Your task to perform on an android device: uninstall "McDonald's" Image 0: 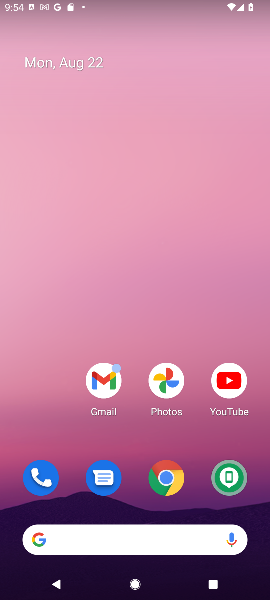
Step 0: drag from (135, 507) to (146, 39)
Your task to perform on an android device: uninstall "McDonald's" Image 1: 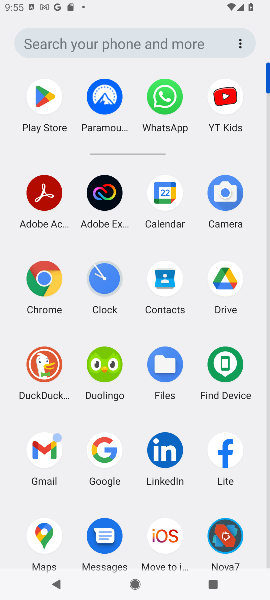
Step 1: click (50, 100)
Your task to perform on an android device: uninstall "McDonald's" Image 2: 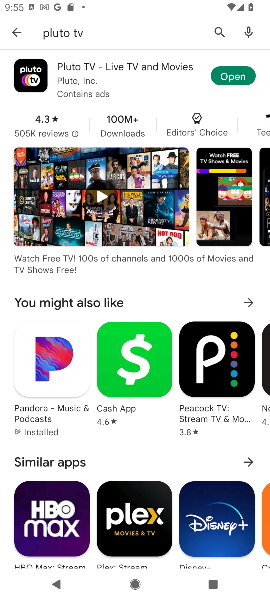
Step 2: click (219, 27)
Your task to perform on an android device: uninstall "McDonald's" Image 3: 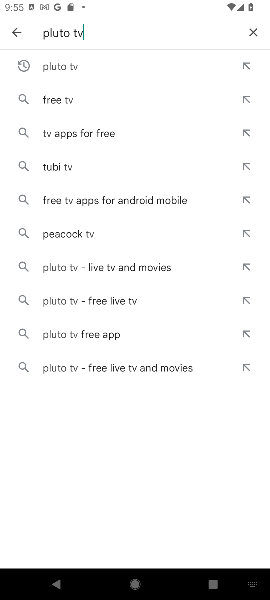
Step 3: click (246, 30)
Your task to perform on an android device: uninstall "McDonald's" Image 4: 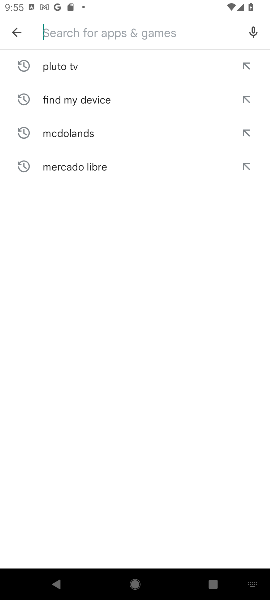
Step 4: type "mcdoland"
Your task to perform on an android device: uninstall "McDonald's" Image 5: 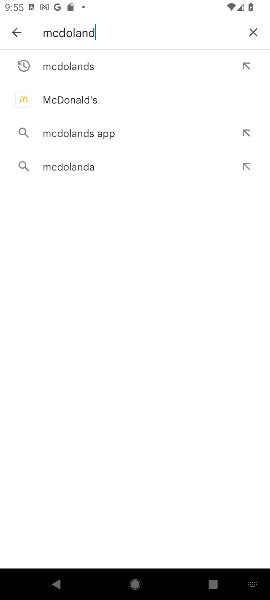
Step 5: click (98, 61)
Your task to perform on an android device: uninstall "McDonald's" Image 6: 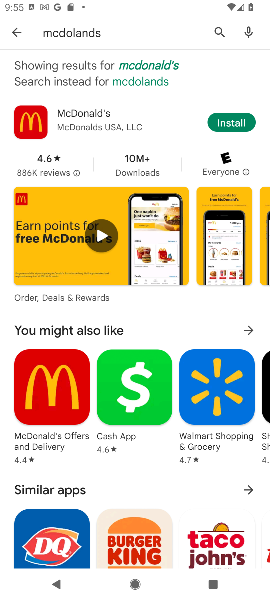
Step 6: click (226, 118)
Your task to perform on an android device: uninstall "McDonald's" Image 7: 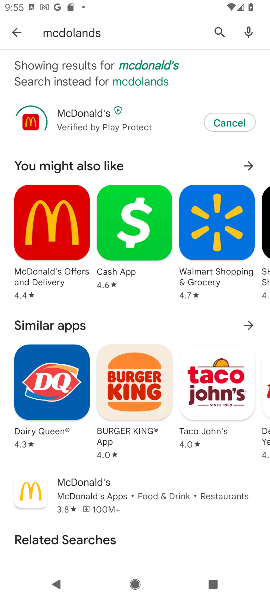
Step 7: task complete